Your task to perform on an android device: toggle sleep mode Image 0: 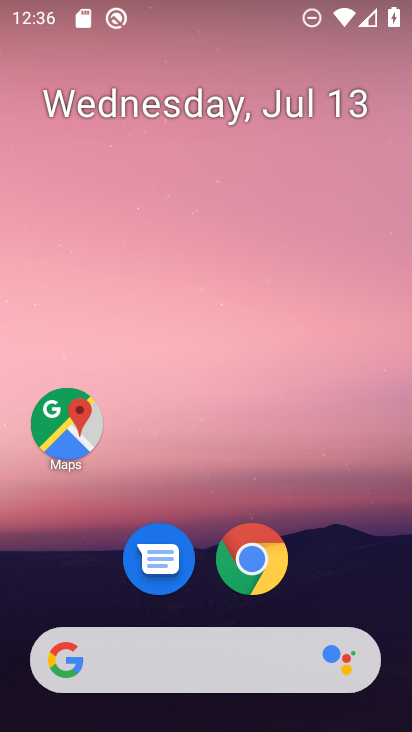
Step 0: drag from (226, 660) to (244, 172)
Your task to perform on an android device: toggle sleep mode Image 1: 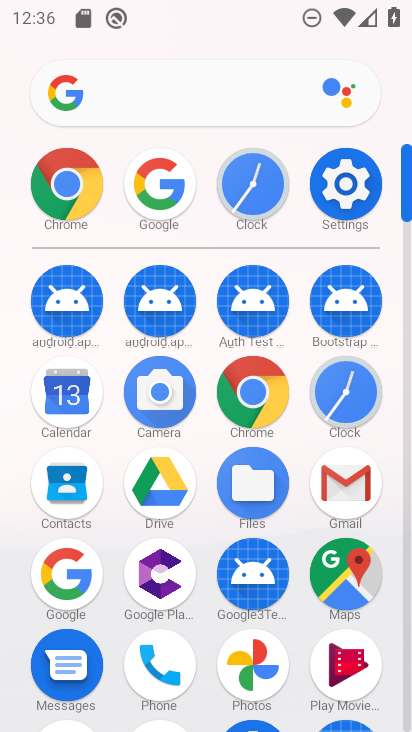
Step 1: click (348, 194)
Your task to perform on an android device: toggle sleep mode Image 2: 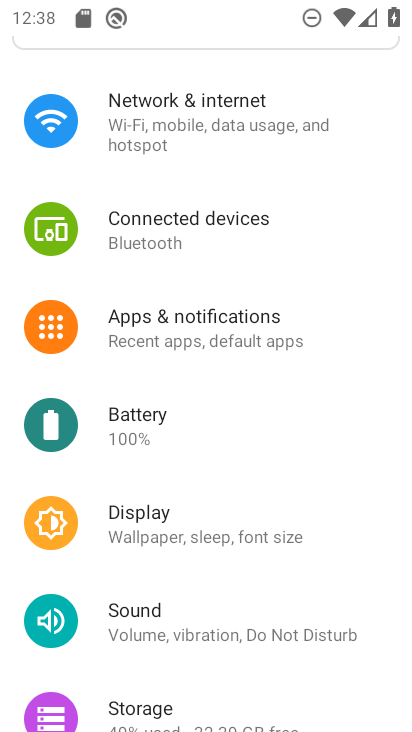
Step 2: click (143, 529)
Your task to perform on an android device: toggle sleep mode Image 3: 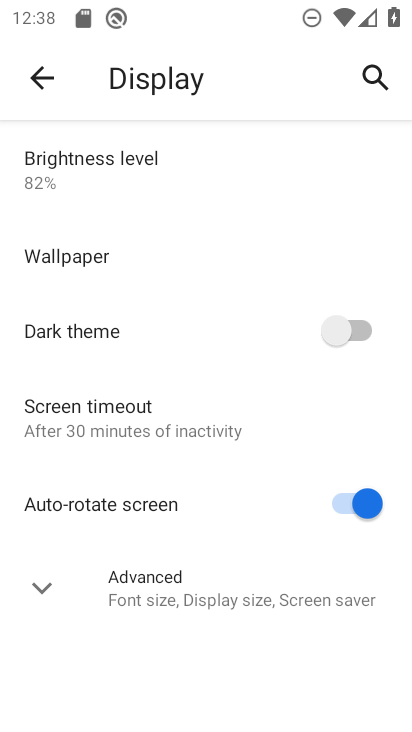
Step 3: click (152, 603)
Your task to perform on an android device: toggle sleep mode Image 4: 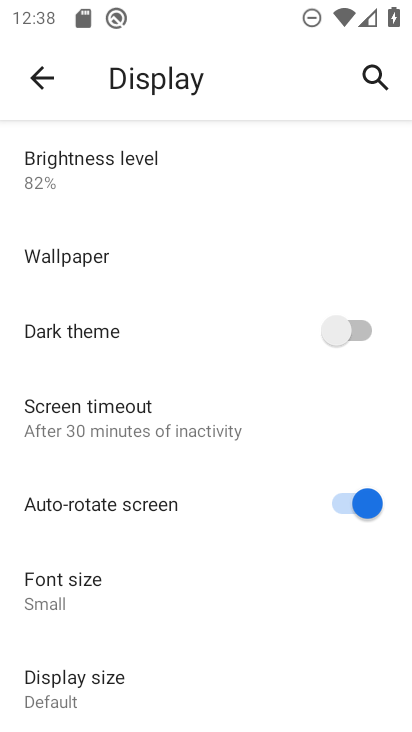
Step 4: task complete